Your task to perform on an android device: Open display settings Image 0: 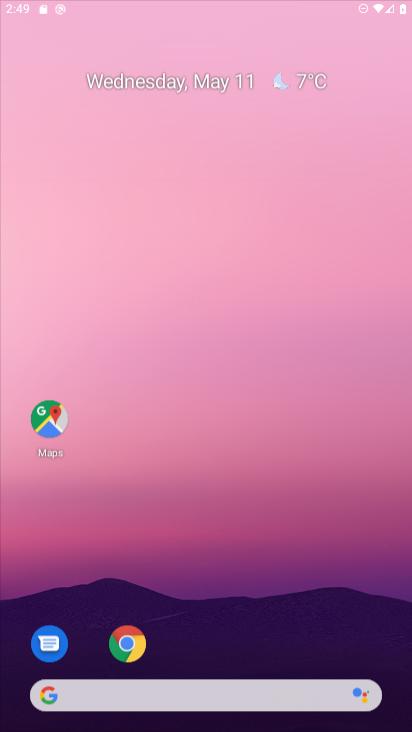
Step 0: drag from (198, 507) to (248, 38)
Your task to perform on an android device: Open display settings Image 1: 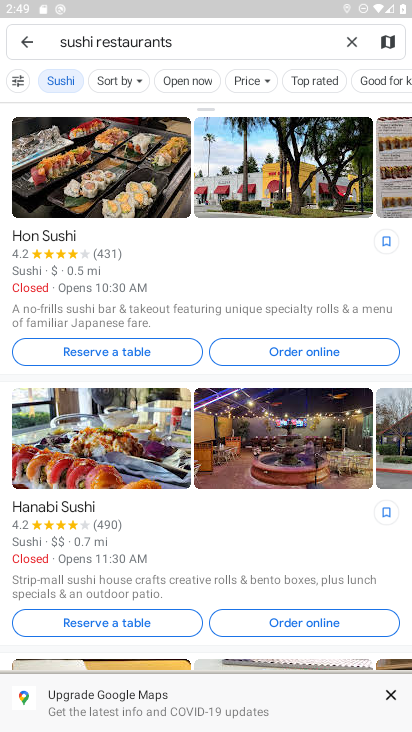
Step 1: press home button
Your task to perform on an android device: Open display settings Image 2: 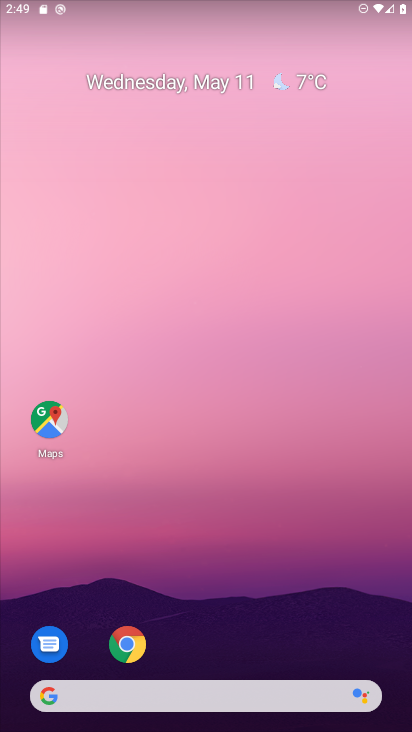
Step 2: drag from (213, 337) to (269, 27)
Your task to perform on an android device: Open display settings Image 3: 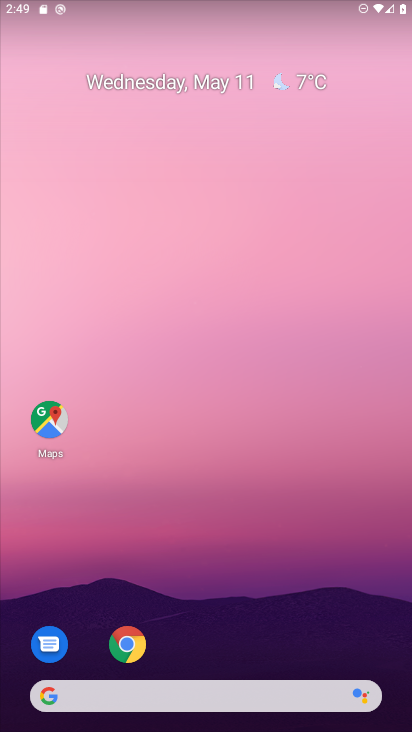
Step 3: drag from (194, 641) to (231, 10)
Your task to perform on an android device: Open display settings Image 4: 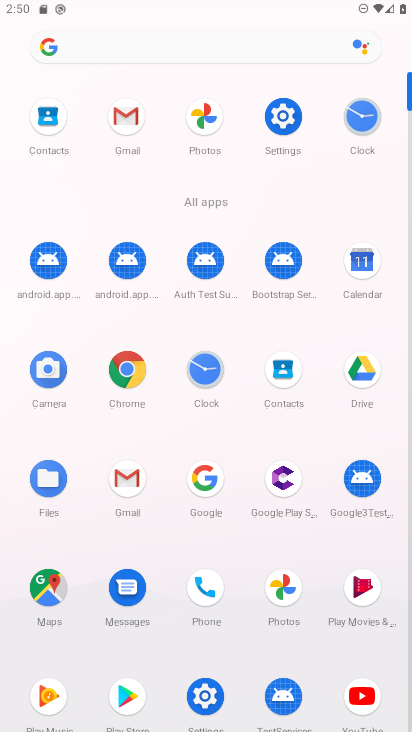
Step 4: click (291, 122)
Your task to perform on an android device: Open display settings Image 5: 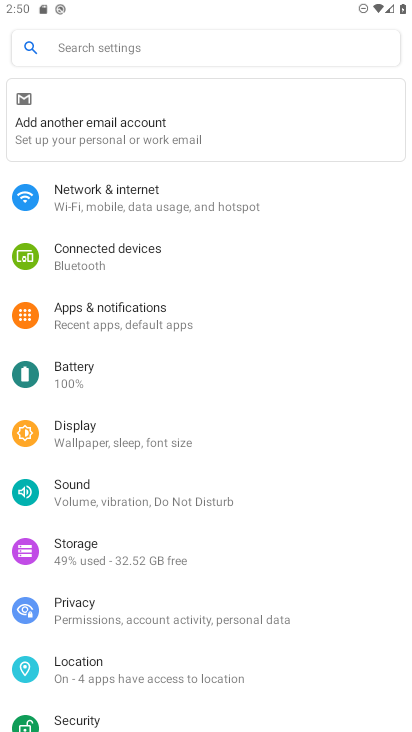
Step 5: click (98, 439)
Your task to perform on an android device: Open display settings Image 6: 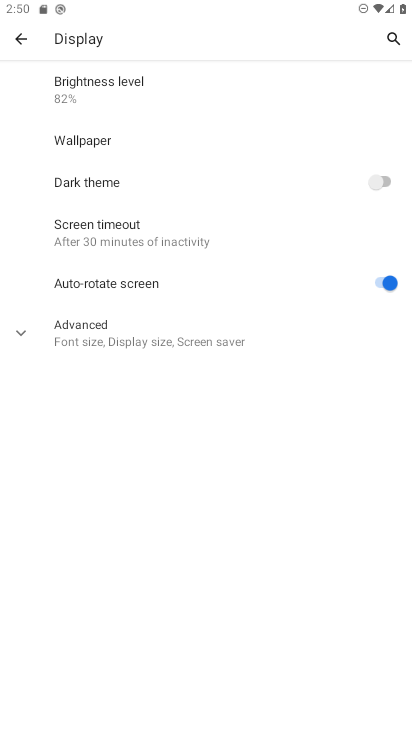
Step 6: task complete